Your task to perform on an android device: What's the weather? Image 0: 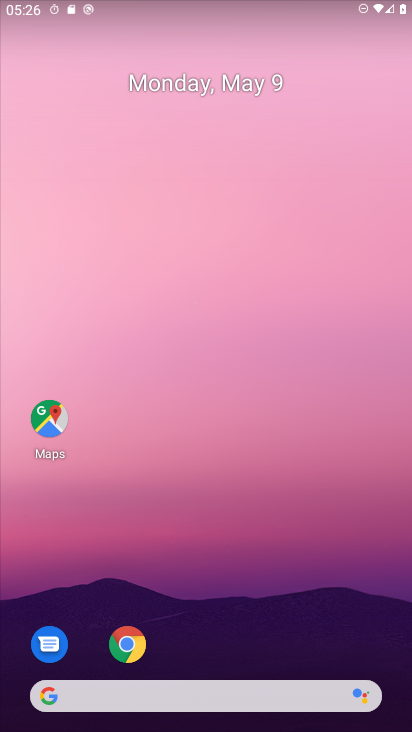
Step 0: drag from (239, 630) to (118, 41)
Your task to perform on an android device: What's the weather? Image 1: 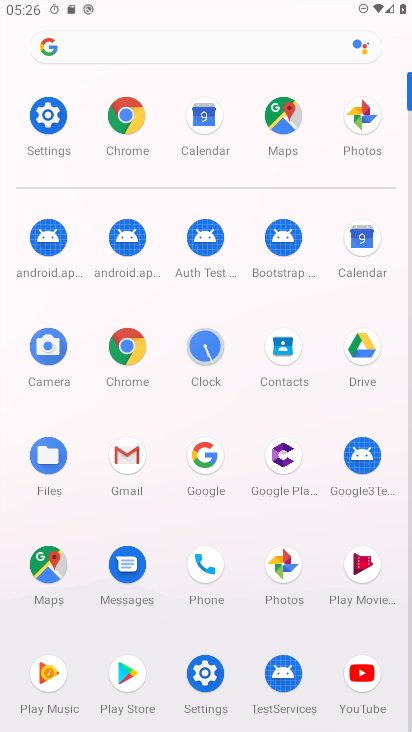
Step 1: click (204, 454)
Your task to perform on an android device: What's the weather? Image 2: 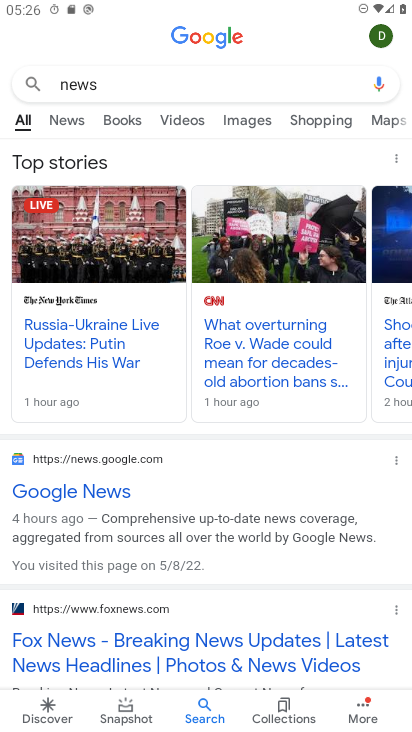
Step 2: click (126, 89)
Your task to perform on an android device: What's the weather? Image 3: 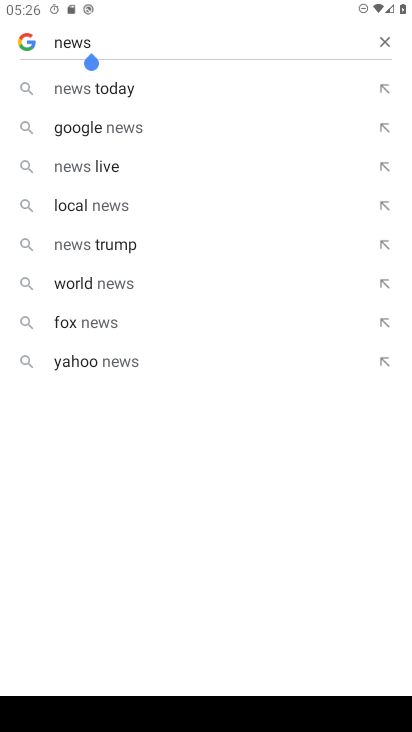
Step 3: click (386, 37)
Your task to perform on an android device: What's the weather? Image 4: 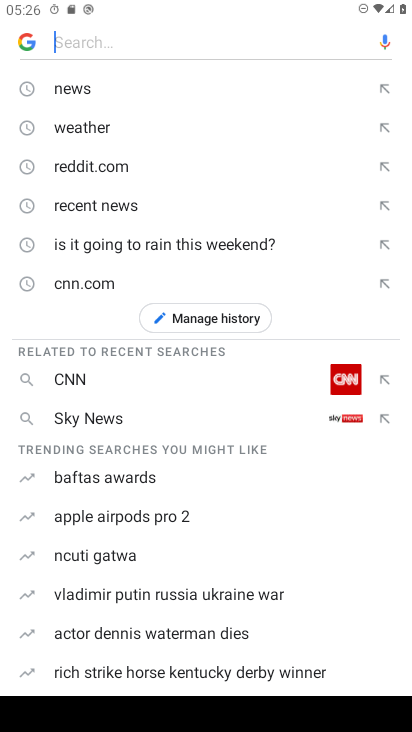
Step 4: click (89, 122)
Your task to perform on an android device: What's the weather? Image 5: 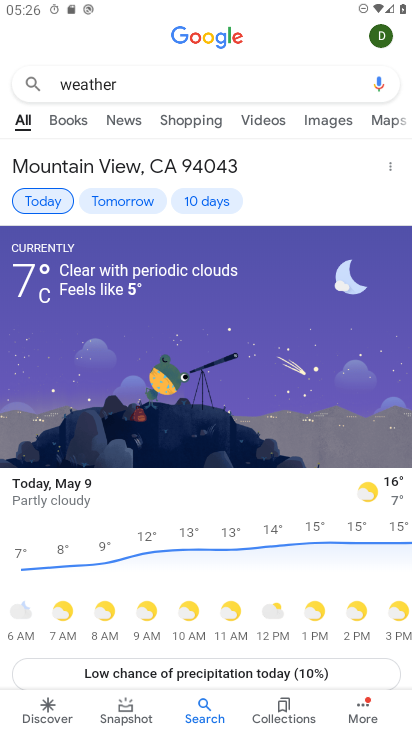
Step 5: task complete